Your task to perform on an android device: delete the emails in spam in the gmail app Image 0: 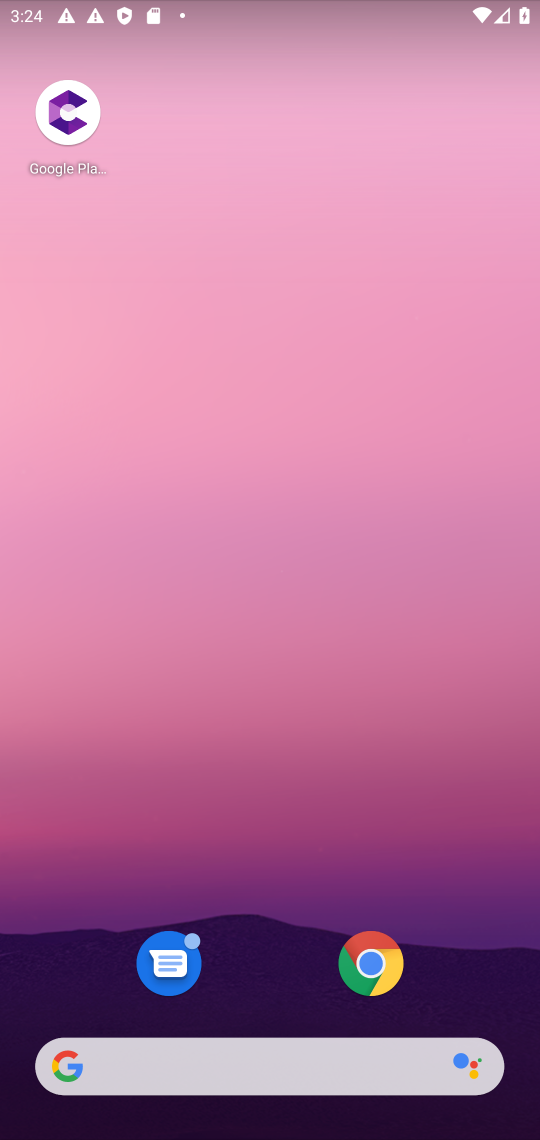
Step 0: drag from (277, 957) to (253, 30)
Your task to perform on an android device: delete the emails in spam in the gmail app Image 1: 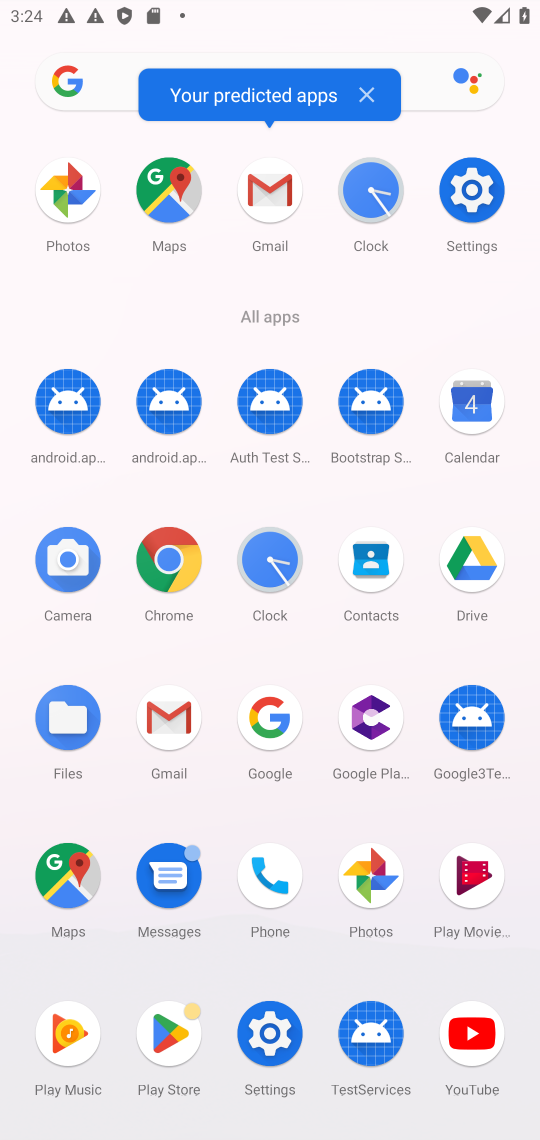
Step 1: click (263, 203)
Your task to perform on an android device: delete the emails in spam in the gmail app Image 2: 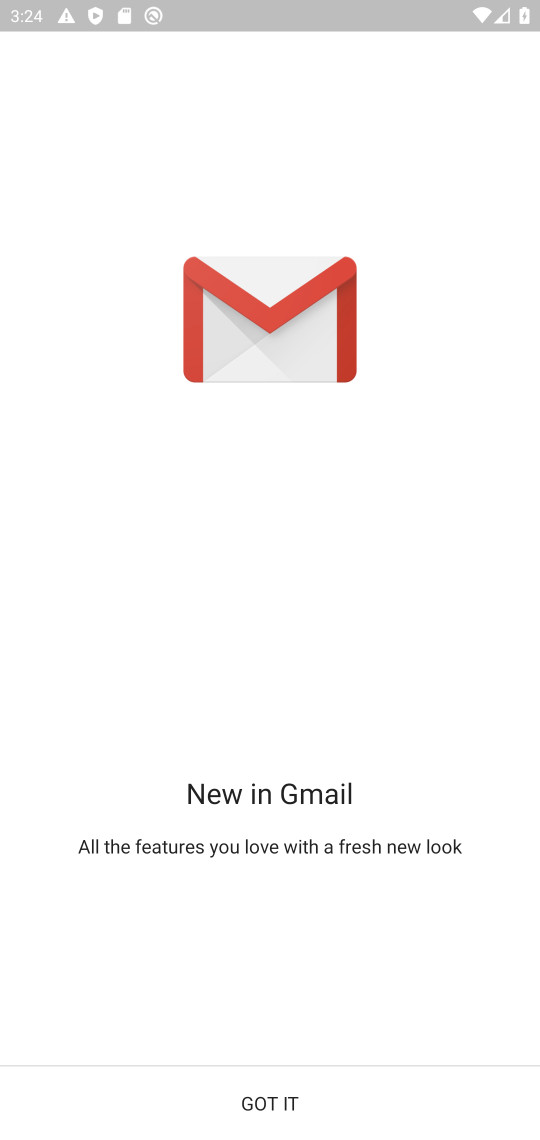
Step 2: click (286, 1118)
Your task to perform on an android device: delete the emails in spam in the gmail app Image 3: 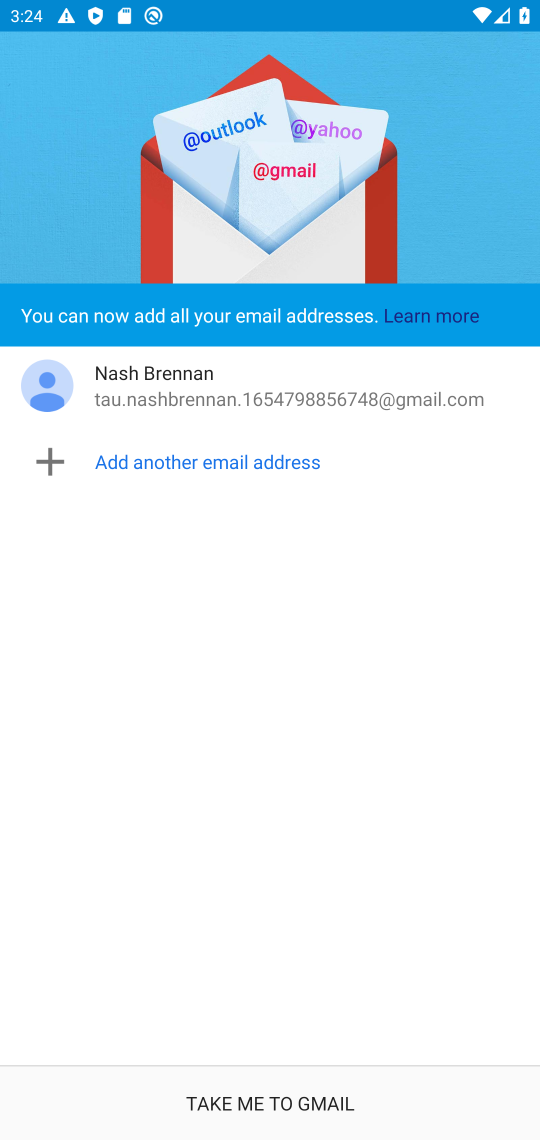
Step 3: click (269, 1097)
Your task to perform on an android device: delete the emails in spam in the gmail app Image 4: 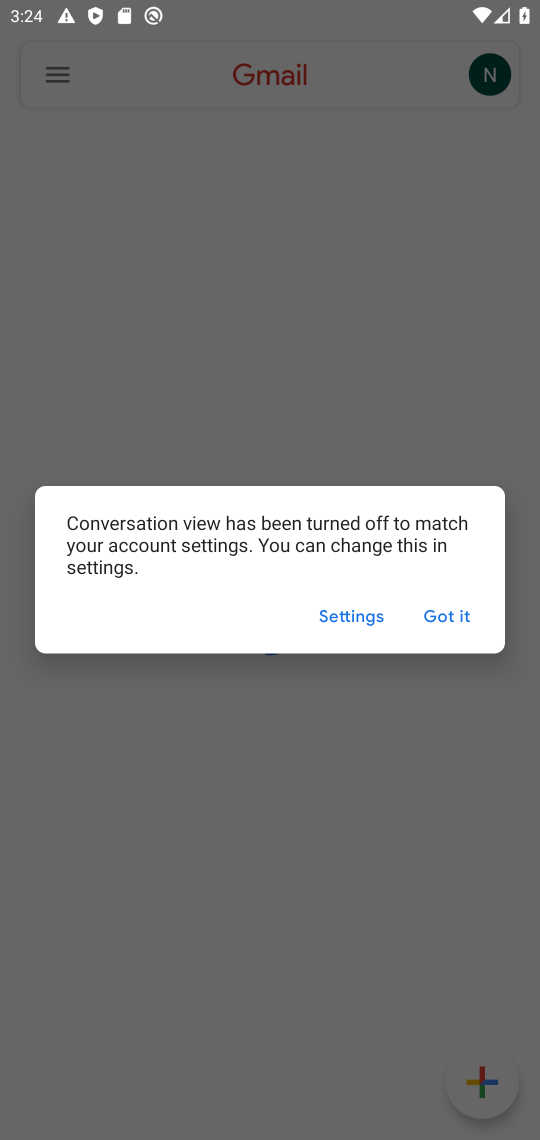
Step 4: click (438, 618)
Your task to perform on an android device: delete the emails in spam in the gmail app Image 5: 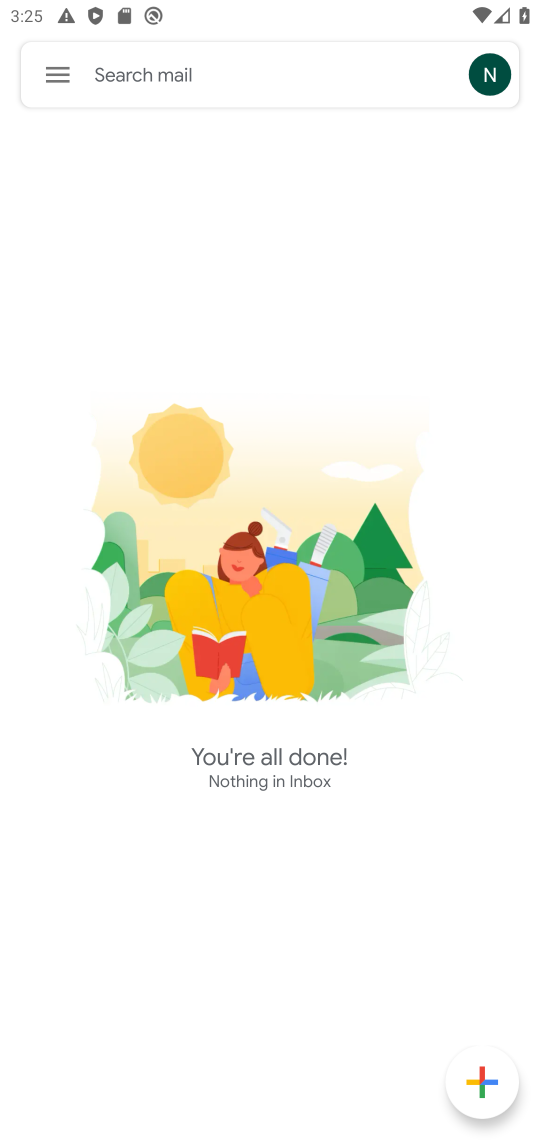
Step 5: click (59, 66)
Your task to perform on an android device: delete the emails in spam in the gmail app Image 6: 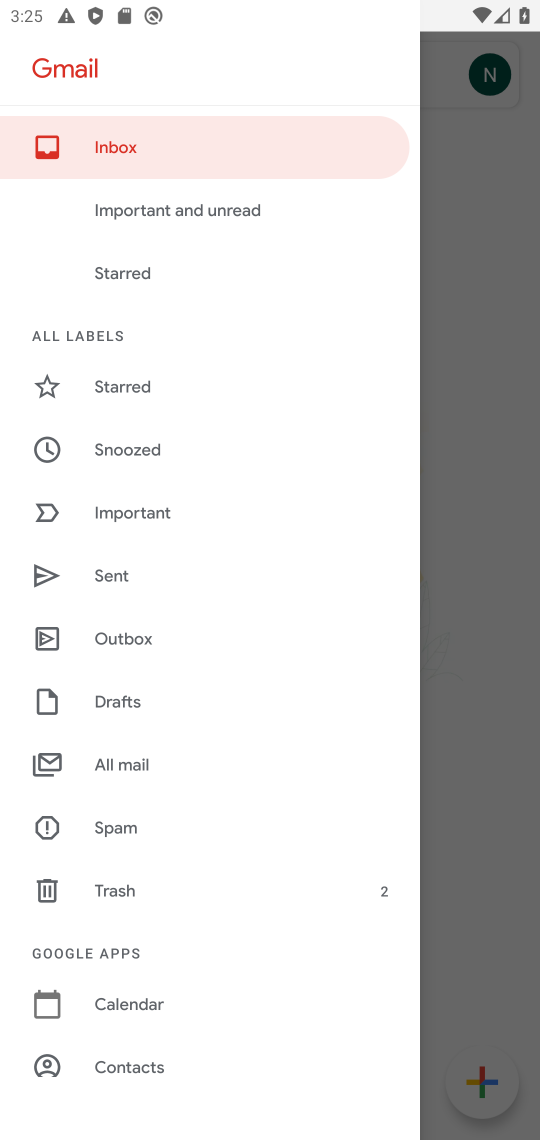
Step 6: click (107, 828)
Your task to perform on an android device: delete the emails in spam in the gmail app Image 7: 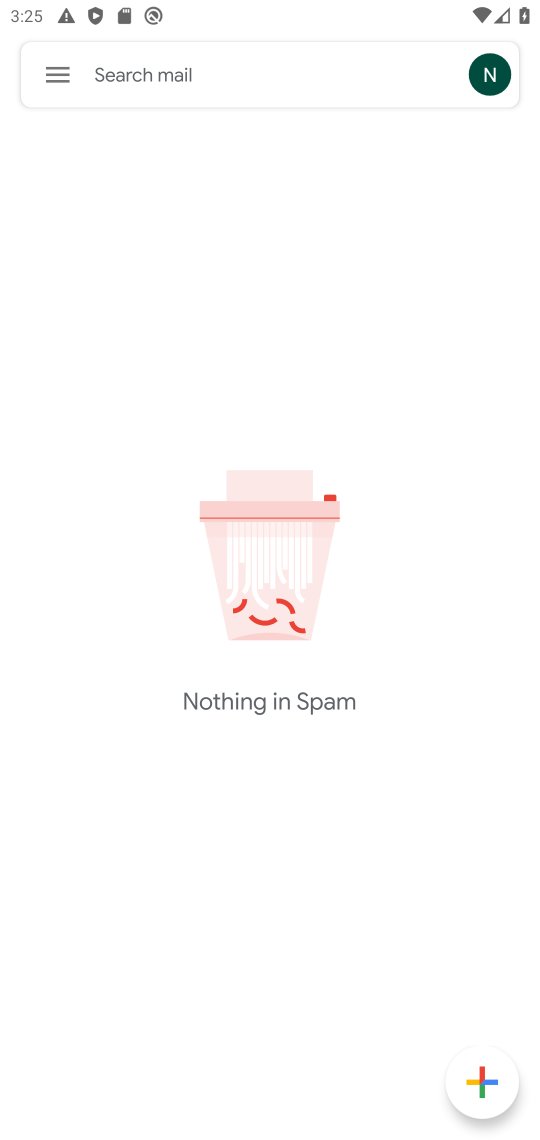
Step 7: task complete